Your task to perform on an android device: clear all cookies in the chrome app Image 0: 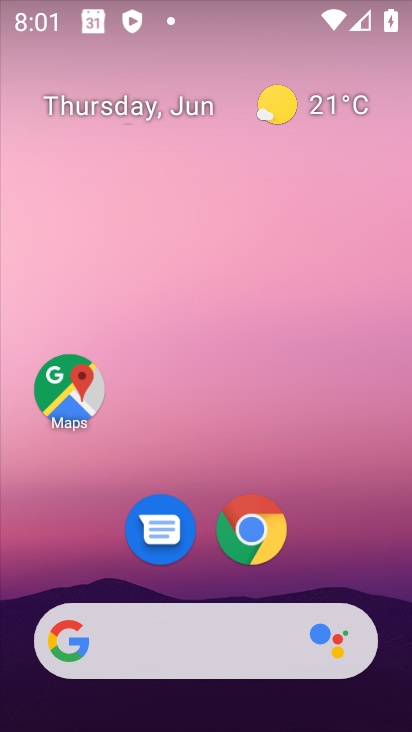
Step 0: click (248, 533)
Your task to perform on an android device: clear all cookies in the chrome app Image 1: 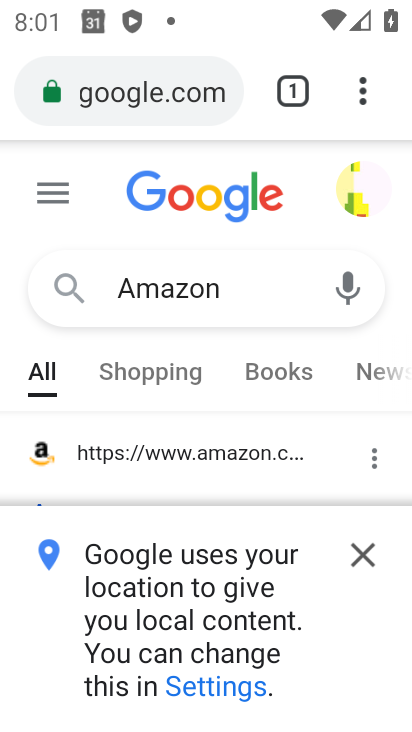
Step 1: click (360, 84)
Your task to perform on an android device: clear all cookies in the chrome app Image 2: 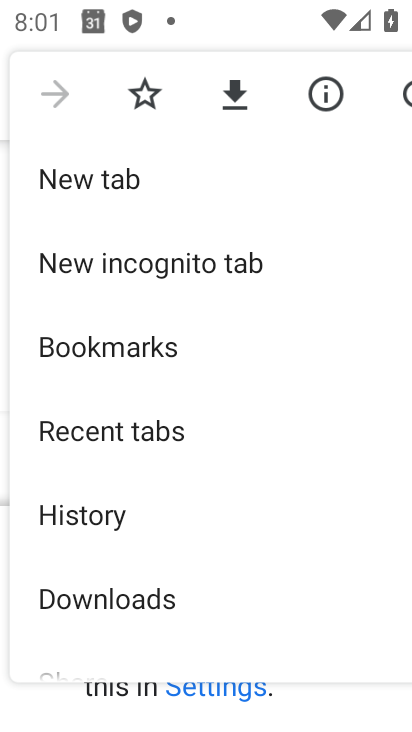
Step 2: drag from (271, 632) to (270, 278)
Your task to perform on an android device: clear all cookies in the chrome app Image 3: 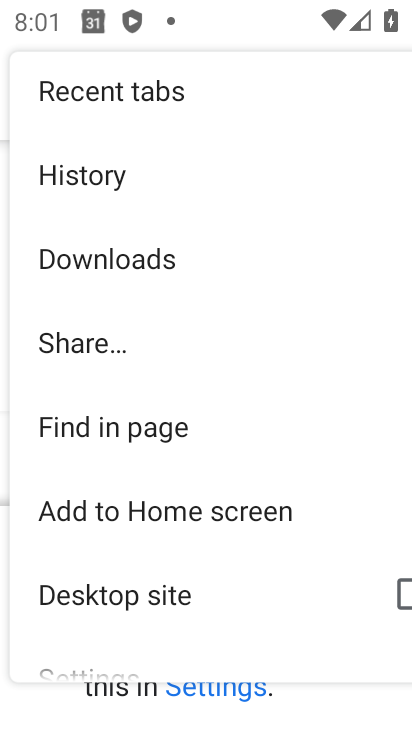
Step 3: drag from (266, 190) to (266, 526)
Your task to perform on an android device: clear all cookies in the chrome app Image 4: 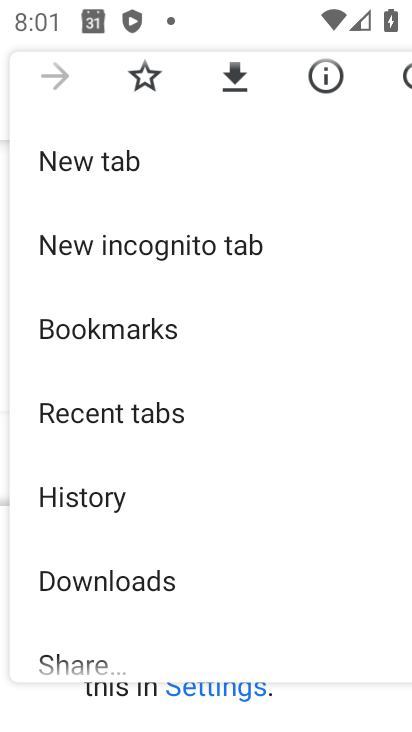
Step 4: click (83, 497)
Your task to perform on an android device: clear all cookies in the chrome app Image 5: 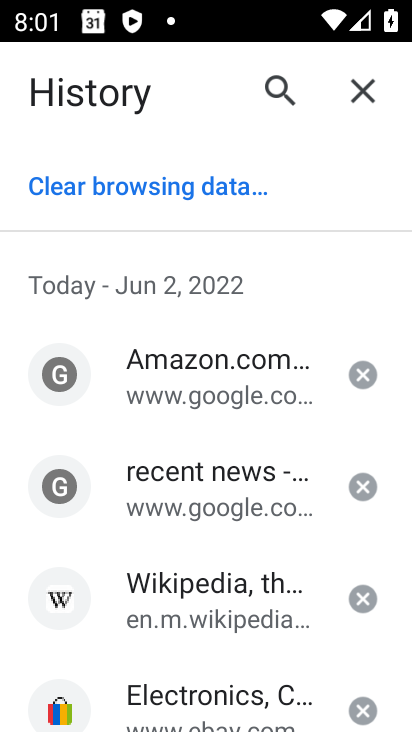
Step 5: click (139, 172)
Your task to perform on an android device: clear all cookies in the chrome app Image 6: 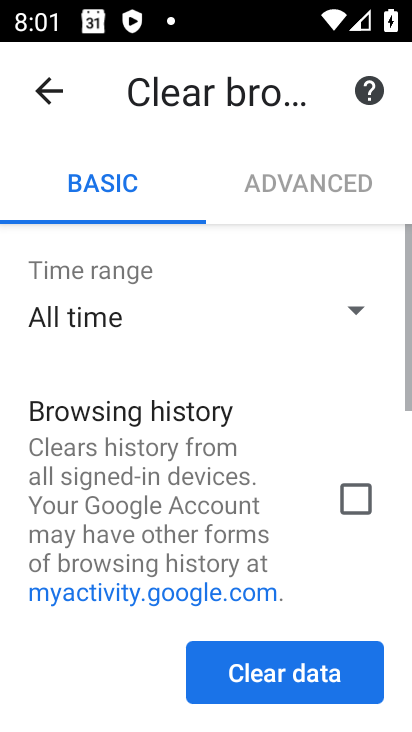
Step 6: drag from (290, 583) to (294, 304)
Your task to perform on an android device: clear all cookies in the chrome app Image 7: 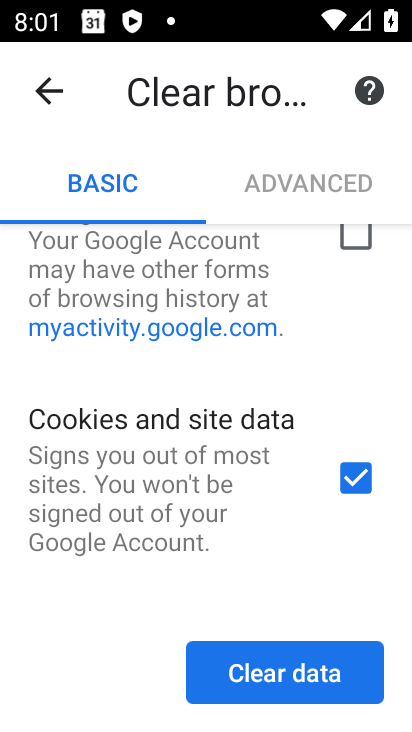
Step 7: drag from (283, 580) to (293, 370)
Your task to perform on an android device: clear all cookies in the chrome app Image 8: 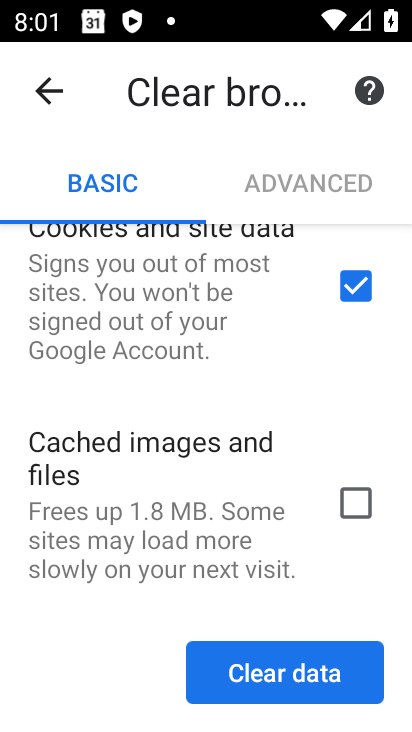
Step 8: click (239, 674)
Your task to perform on an android device: clear all cookies in the chrome app Image 9: 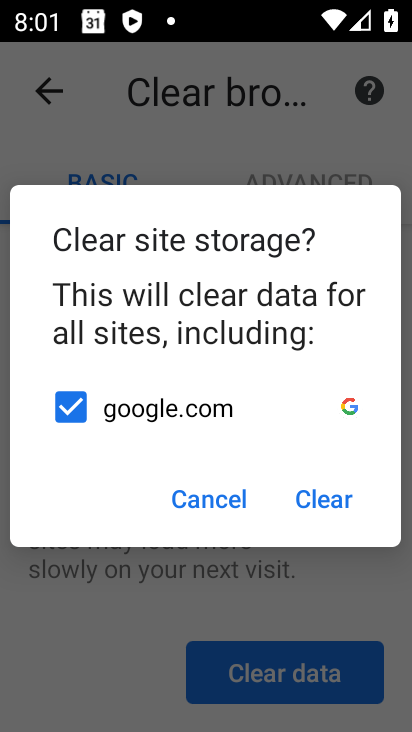
Step 9: click (338, 500)
Your task to perform on an android device: clear all cookies in the chrome app Image 10: 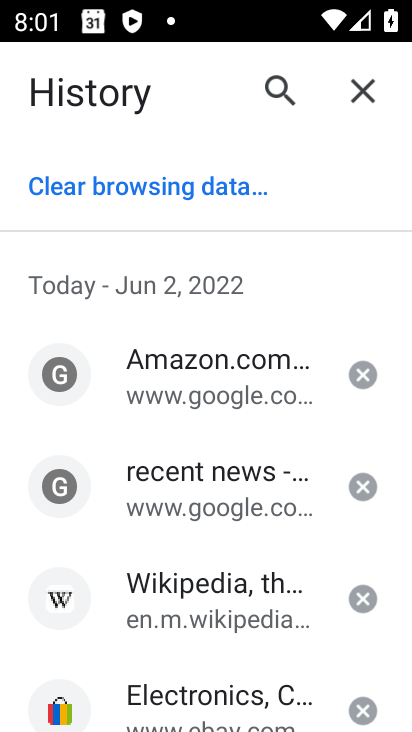
Step 10: task complete